Your task to perform on an android device: turn on sleep mode Image 0: 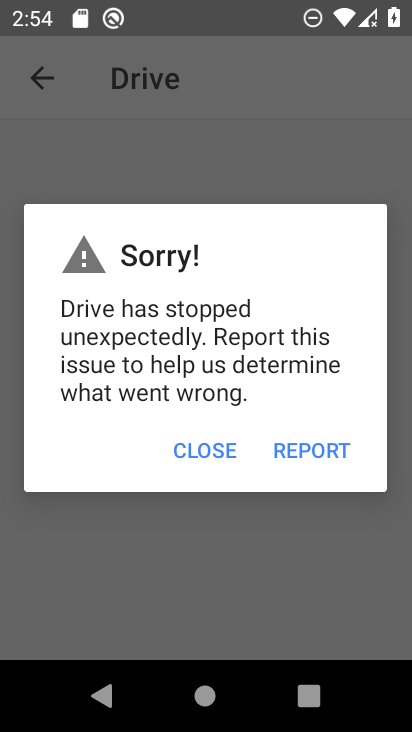
Step 0: press home button
Your task to perform on an android device: turn on sleep mode Image 1: 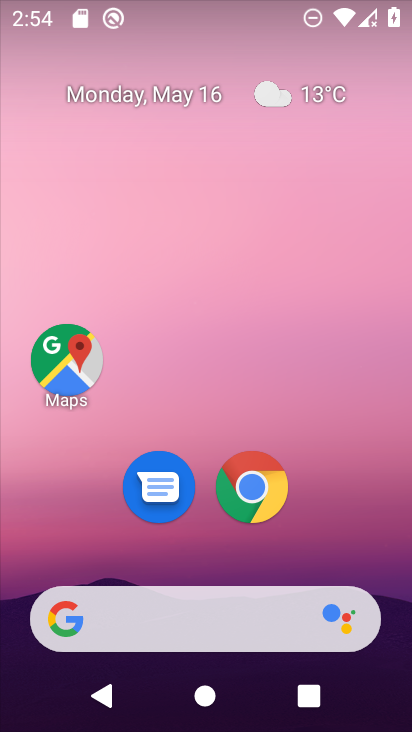
Step 1: drag from (389, 643) to (351, 231)
Your task to perform on an android device: turn on sleep mode Image 2: 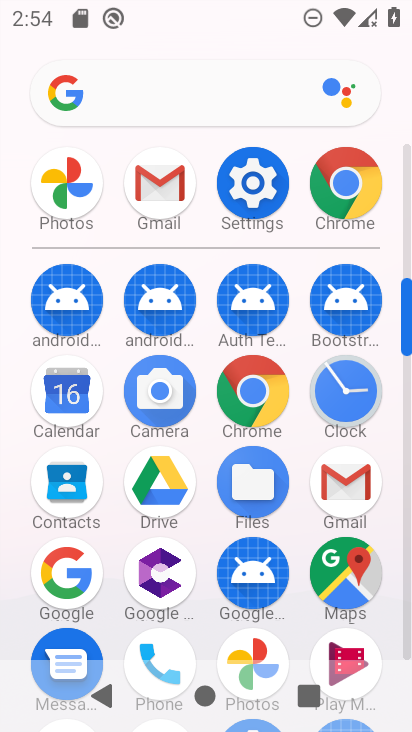
Step 2: click (260, 193)
Your task to perform on an android device: turn on sleep mode Image 3: 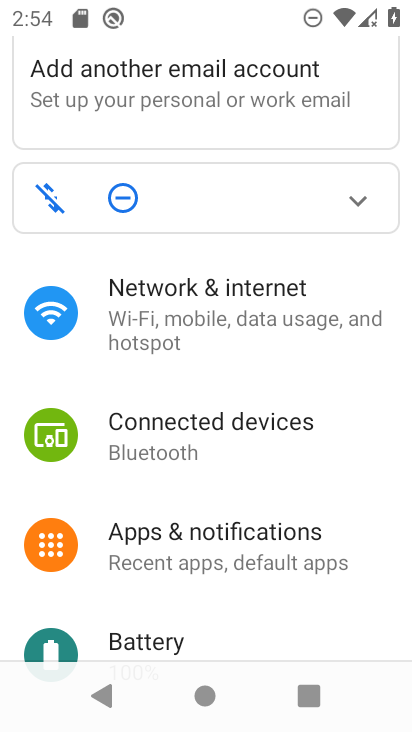
Step 3: drag from (287, 612) to (285, 272)
Your task to perform on an android device: turn on sleep mode Image 4: 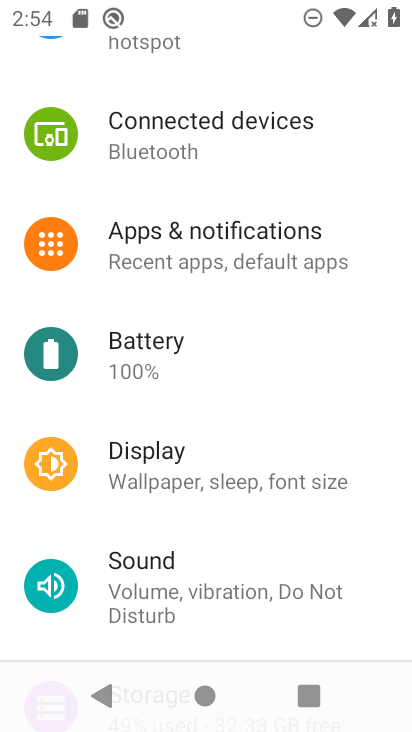
Step 4: click (149, 470)
Your task to perform on an android device: turn on sleep mode Image 5: 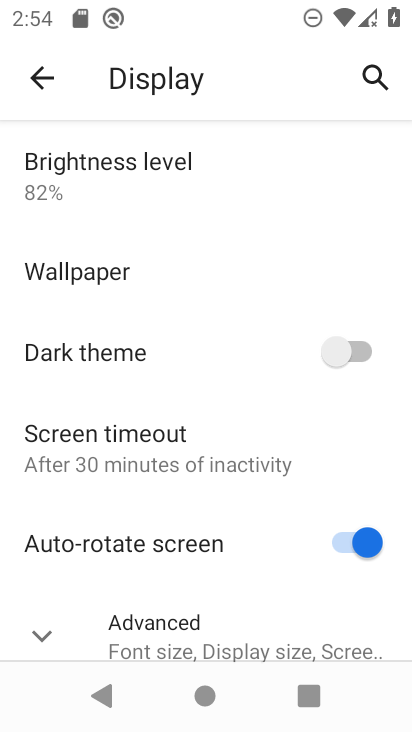
Step 5: drag from (237, 612) to (240, 420)
Your task to perform on an android device: turn on sleep mode Image 6: 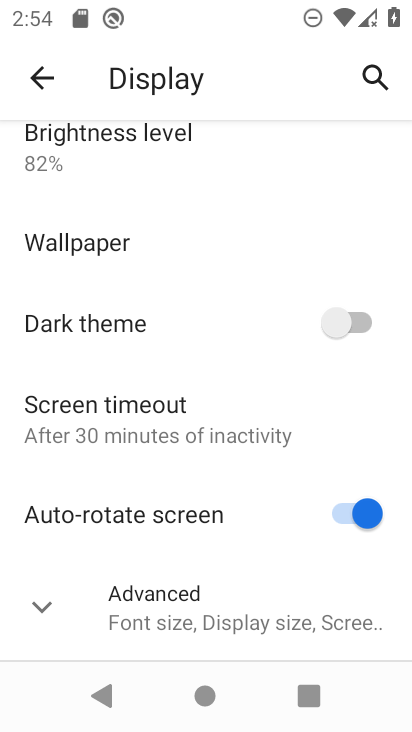
Step 6: click (51, 604)
Your task to perform on an android device: turn on sleep mode Image 7: 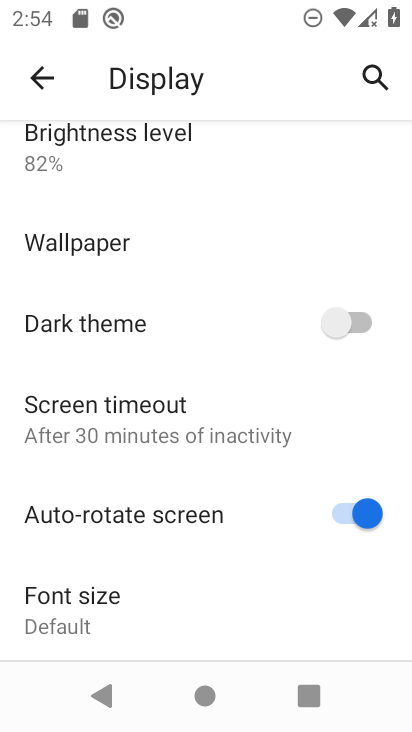
Step 7: click (93, 406)
Your task to perform on an android device: turn on sleep mode Image 8: 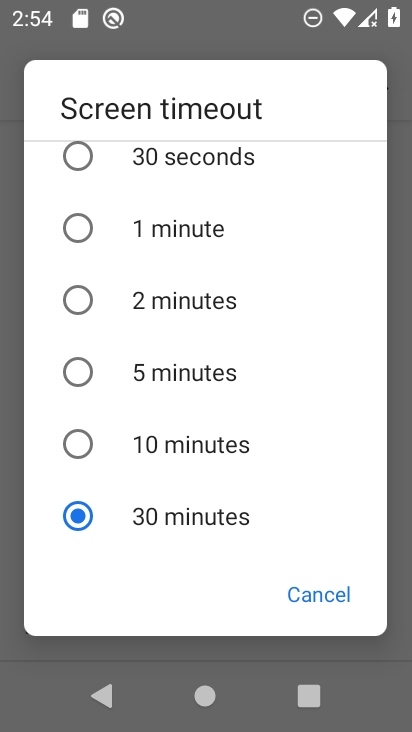
Step 8: task complete